Your task to perform on an android device: Open Youtube and go to "Your channel" Image 0: 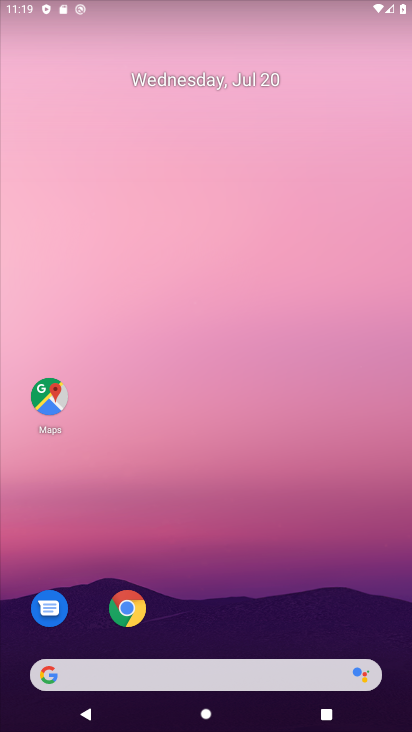
Step 0: drag from (370, 632) to (187, 51)
Your task to perform on an android device: Open Youtube and go to "Your channel" Image 1: 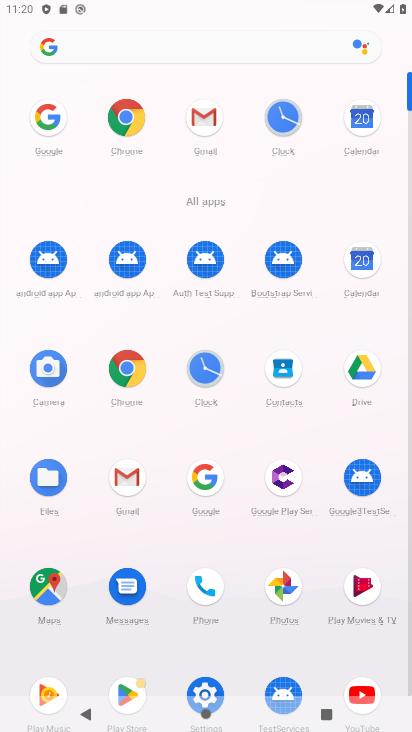
Step 1: click (364, 684)
Your task to perform on an android device: Open Youtube and go to "Your channel" Image 2: 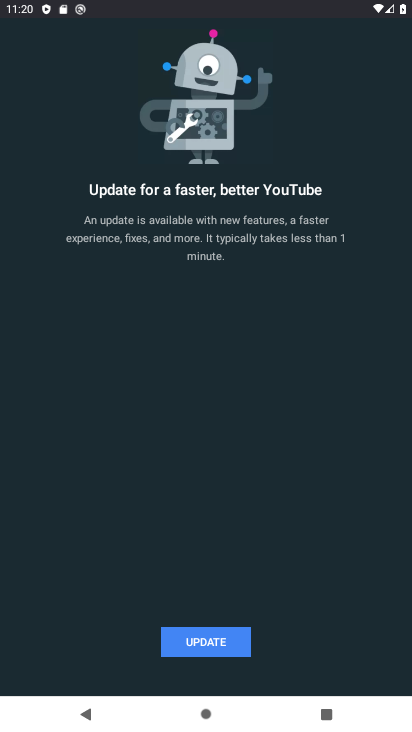
Step 2: click (222, 646)
Your task to perform on an android device: Open Youtube and go to "Your channel" Image 3: 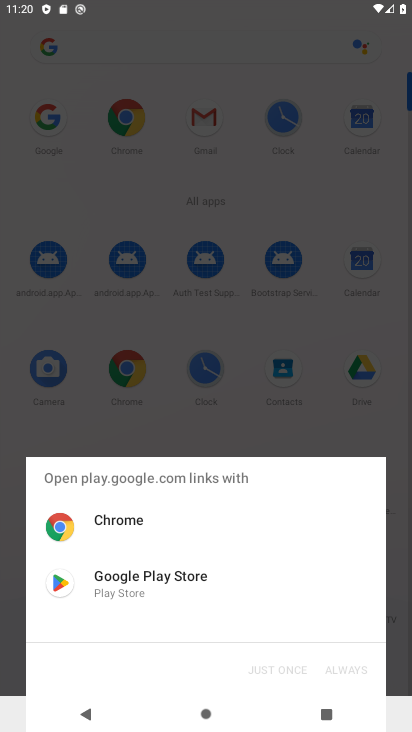
Step 3: click (127, 590)
Your task to perform on an android device: Open Youtube and go to "Your channel" Image 4: 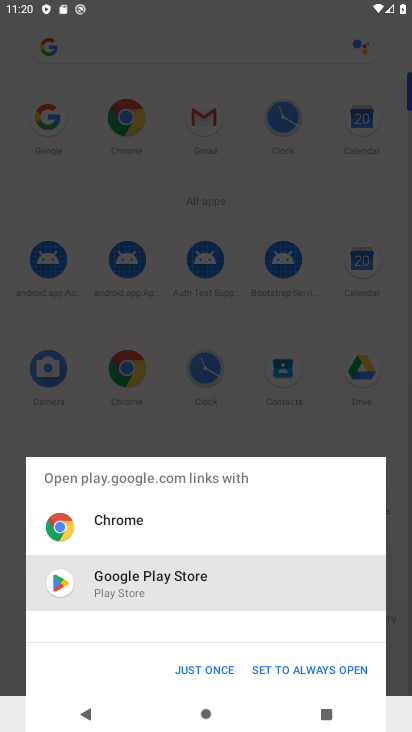
Step 4: click (193, 672)
Your task to perform on an android device: Open Youtube and go to "Your channel" Image 5: 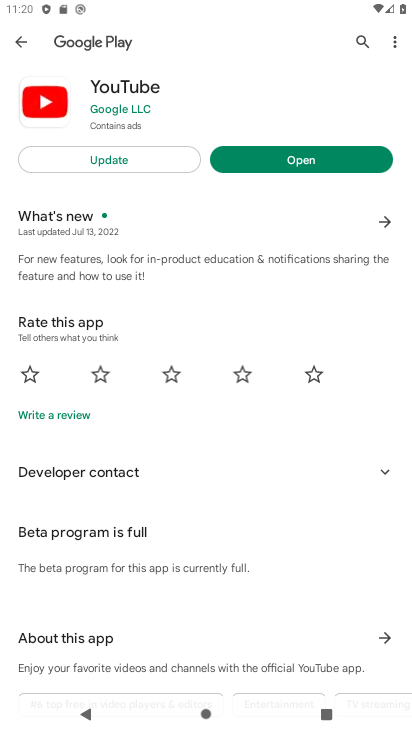
Step 5: click (95, 160)
Your task to perform on an android device: Open Youtube and go to "Your channel" Image 6: 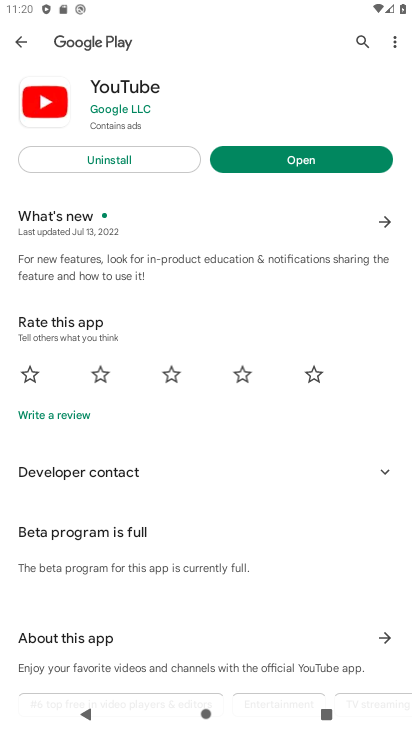
Step 6: click (284, 169)
Your task to perform on an android device: Open Youtube and go to "Your channel" Image 7: 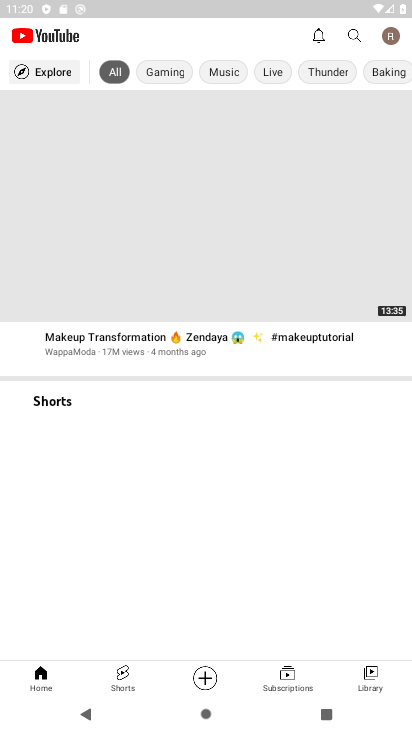
Step 7: click (394, 40)
Your task to perform on an android device: Open Youtube and go to "Your channel" Image 8: 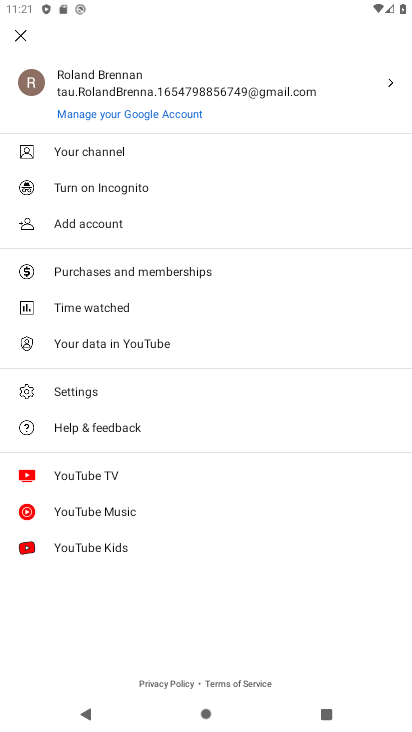
Step 8: click (105, 156)
Your task to perform on an android device: Open Youtube and go to "Your channel" Image 9: 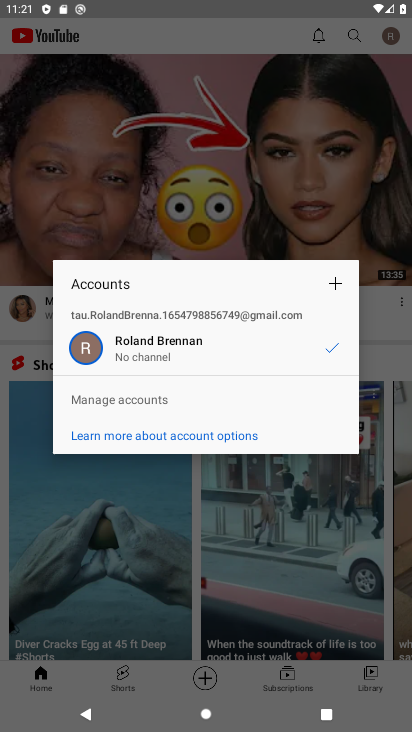
Step 9: task complete